Your task to perform on an android device: Open CNN.com Image 0: 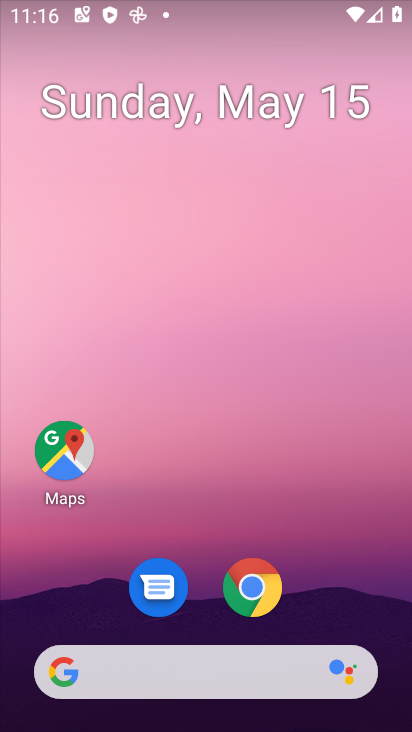
Step 0: drag from (380, 632) to (309, 93)
Your task to perform on an android device: Open CNN.com Image 1: 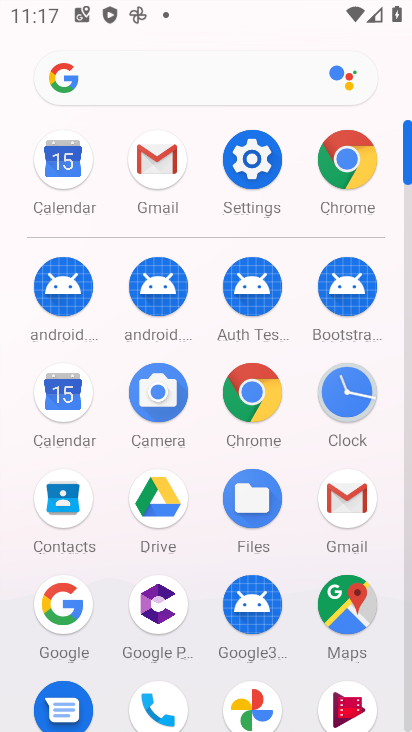
Step 1: click (266, 397)
Your task to perform on an android device: Open CNN.com Image 2: 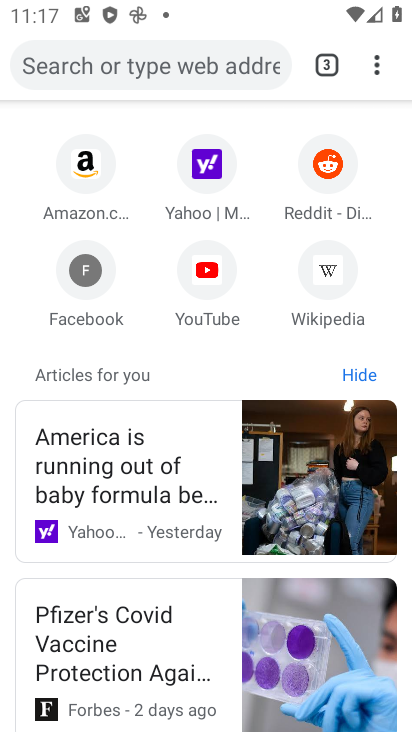
Step 2: click (141, 64)
Your task to perform on an android device: Open CNN.com Image 3: 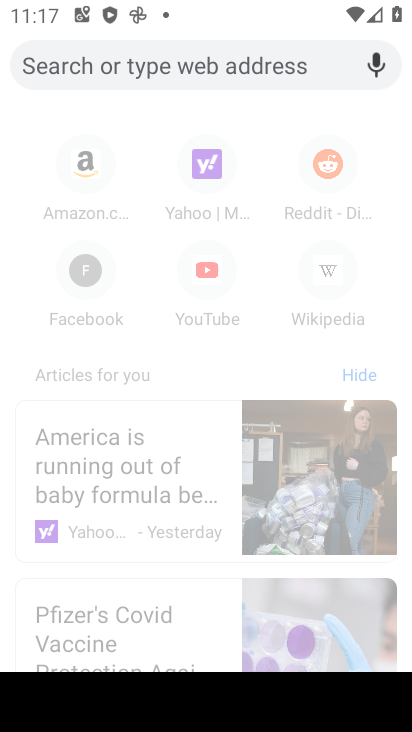
Step 3: type "cnn.com"
Your task to perform on an android device: Open CNN.com Image 4: 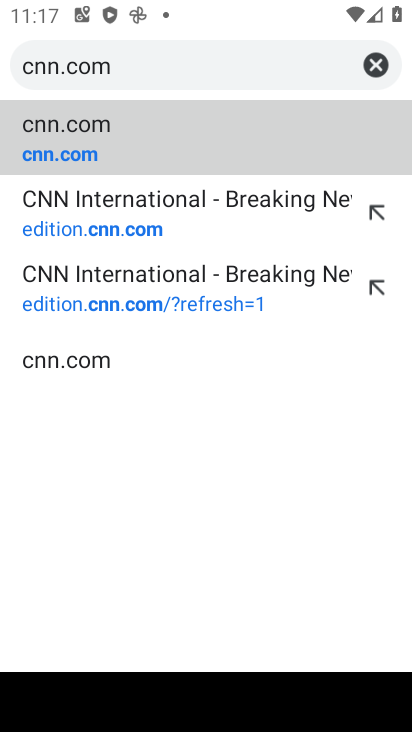
Step 4: click (150, 149)
Your task to perform on an android device: Open CNN.com Image 5: 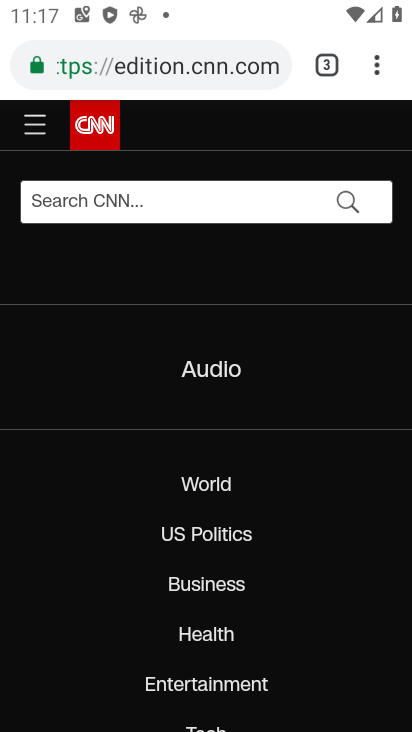
Step 5: task complete